Your task to perform on an android device: toggle show notifications on the lock screen Image 0: 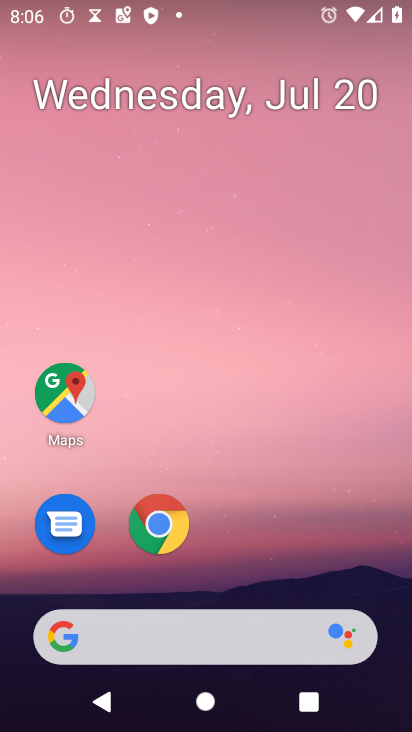
Step 0: drag from (185, 632) to (319, 200)
Your task to perform on an android device: toggle show notifications on the lock screen Image 1: 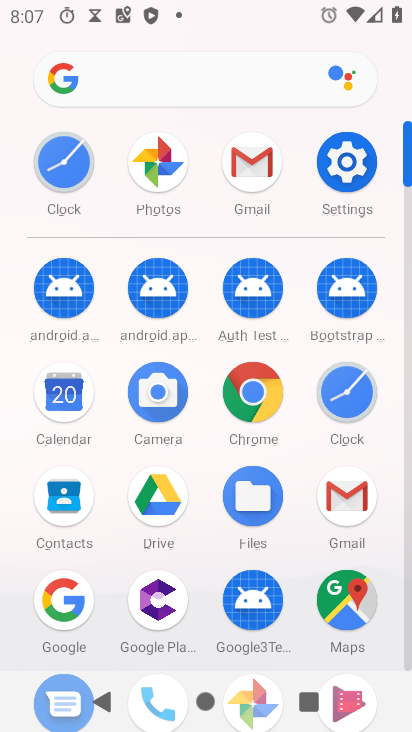
Step 1: click (342, 165)
Your task to perform on an android device: toggle show notifications on the lock screen Image 2: 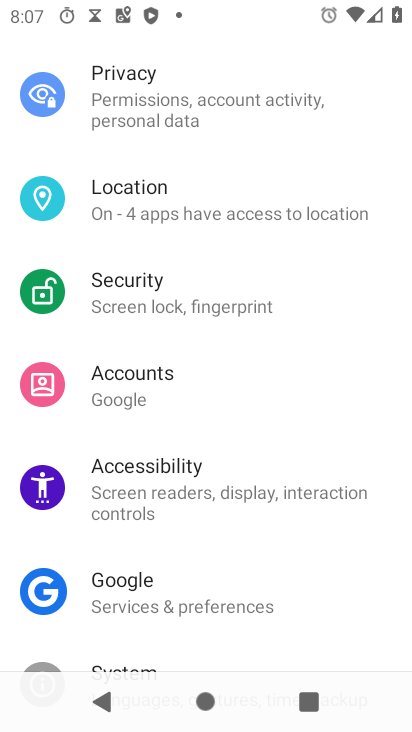
Step 2: drag from (297, 143) to (198, 525)
Your task to perform on an android device: toggle show notifications on the lock screen Image 3: 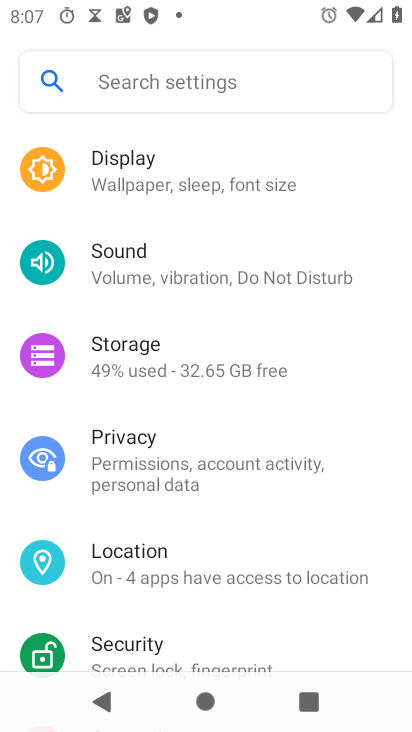
Step 3: drag from (246, 221) to (178, 552)
Your task to perform on an android device: toggle show notifications on the lock screen Image 4: 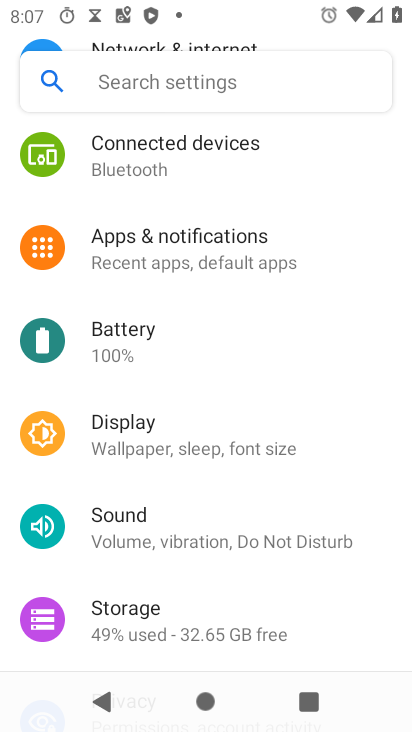
Step 4: click (197, 234)
Your task to perform on an android device: toggle show notifications on the lock screen Image 5: 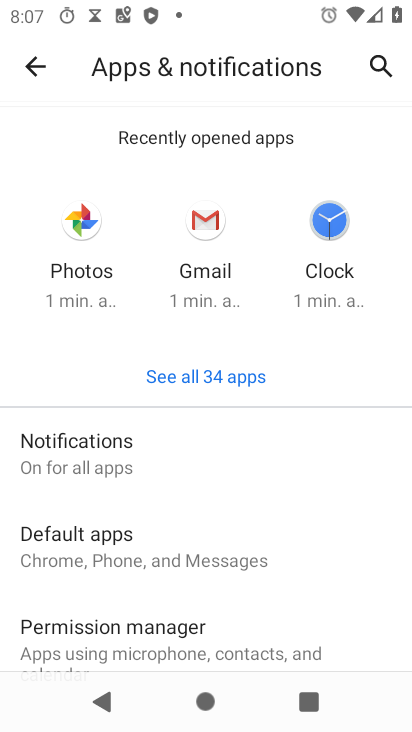
Step 5: drag from (247, 499) to (358, 56)
Your task to perform on an android device: toggle show notifications on the lock screen Image 6: 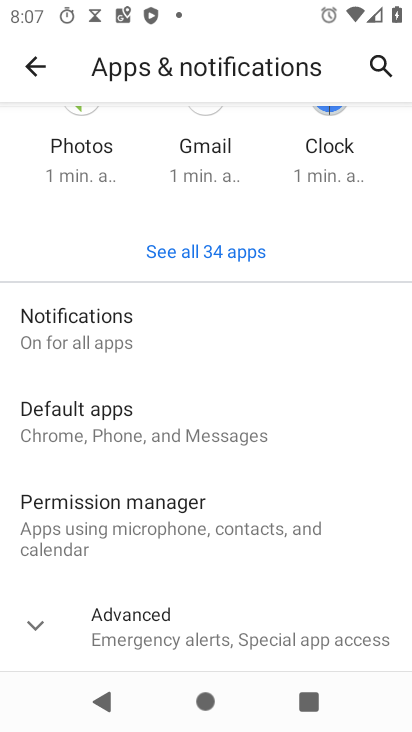
Step 6: click (102, 333)
Your task to perform on an android device: toggle show notifications on the lock screen Image 7: 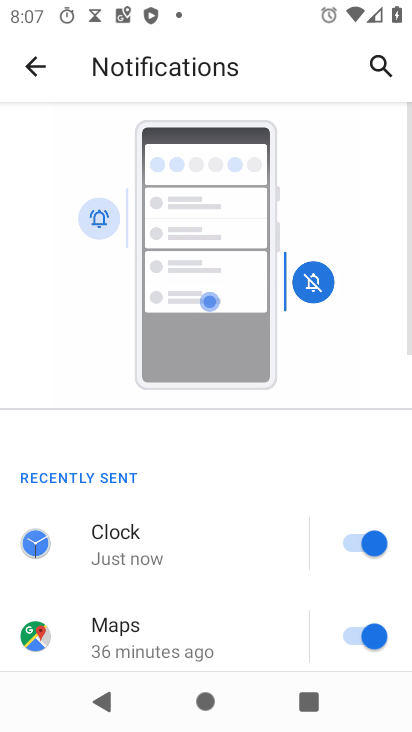
Step 7: drag from (211, 540) to (315, 11)
Your task to perform on an android device: toggle show notifications on the lock screen Image 8: 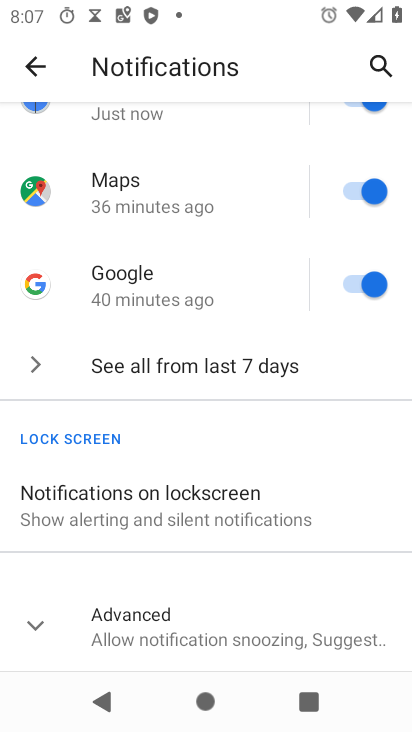
Step 8: click (153, 489)
Your task to perform on an android device: toggle show notifications on the lock screen Image 9: 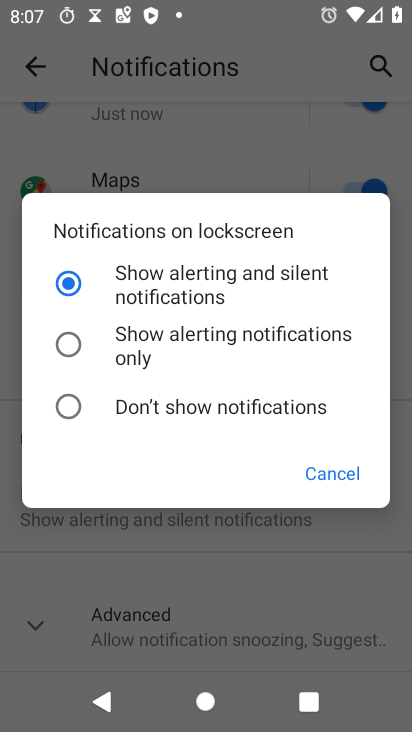
Step 9: click (70, 405)
Your task to perform on an android device: toggle show notifications on the lock screen Image 10: 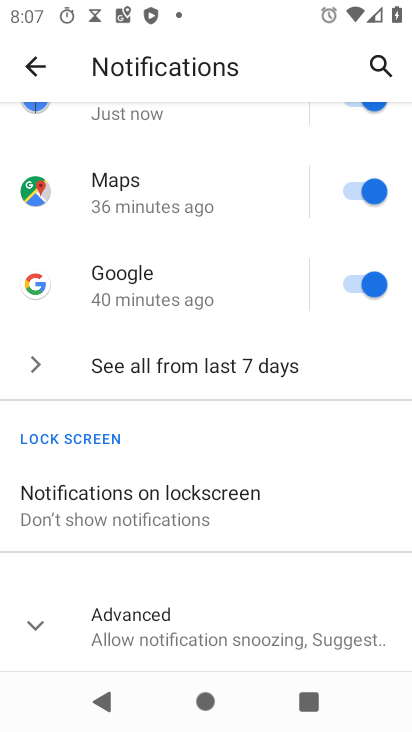
Step 10: task complete